Your task to perform on an android device: toggle show notifications on the lock screen Image 0: 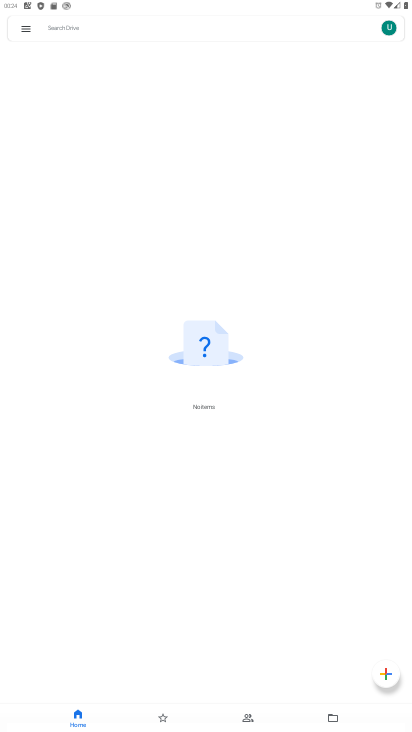
Step 0: press home button
Your task to perform on an android device: toggle show notifications on the lock screen Image 1: 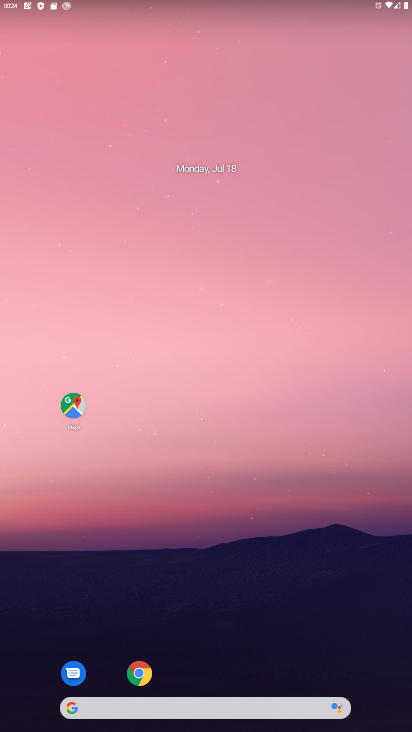
Step 1: drag from (259, 669) to (151, 129)
Your task to perform on an android device: toggle show notifications on the lock screen Image 2: 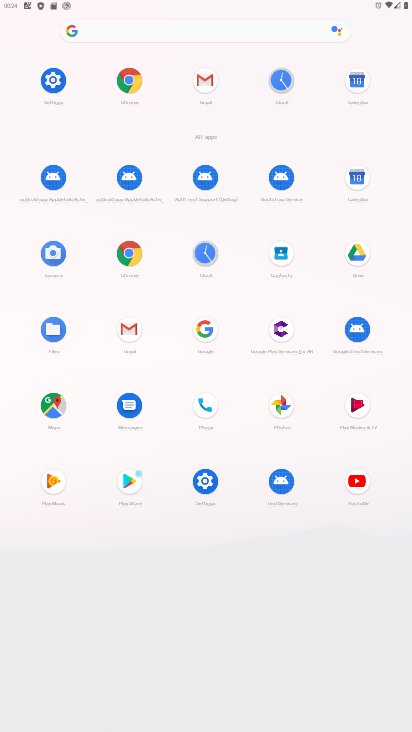
Step 2: click (61, 106)
Your task to perform on an android device: toggle show notifications on the lock screen Image 3: 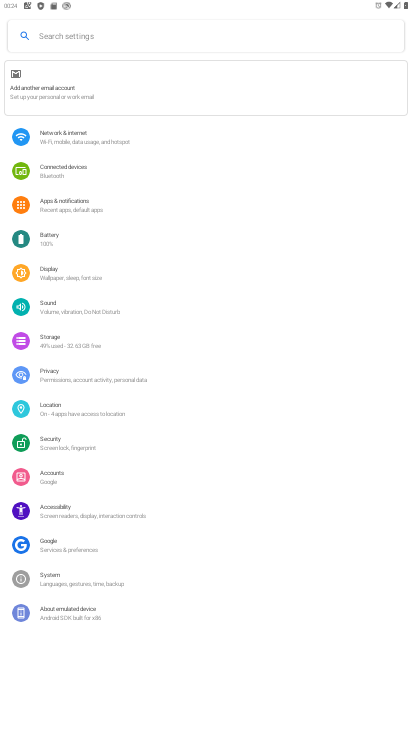
Step 3: click (162, 199)
Your task to perform on an android device: toggle show notifications on the lock screen Image 4: 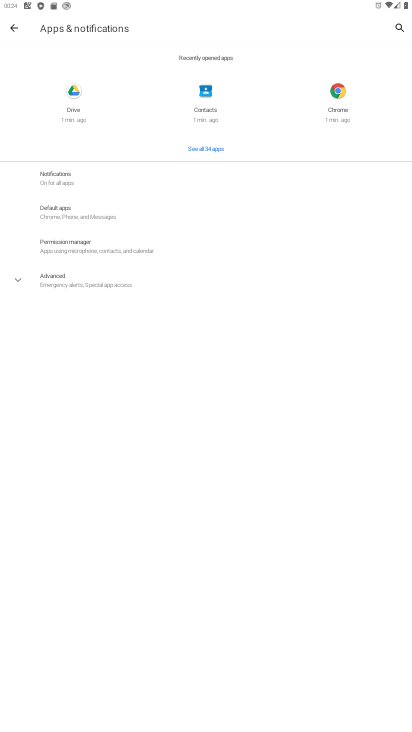
Step 4: task complete